Your task to perform on an android device: open device folders in google photos Image 0: 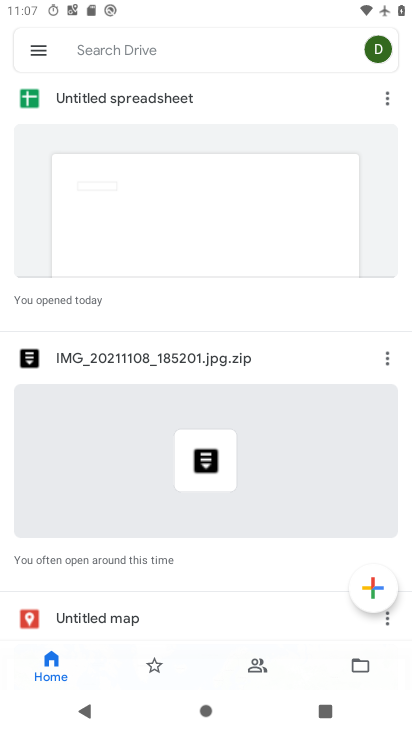
Step 0: press home button
Your task to perform on an android device: open device folders in google photos Image 1: 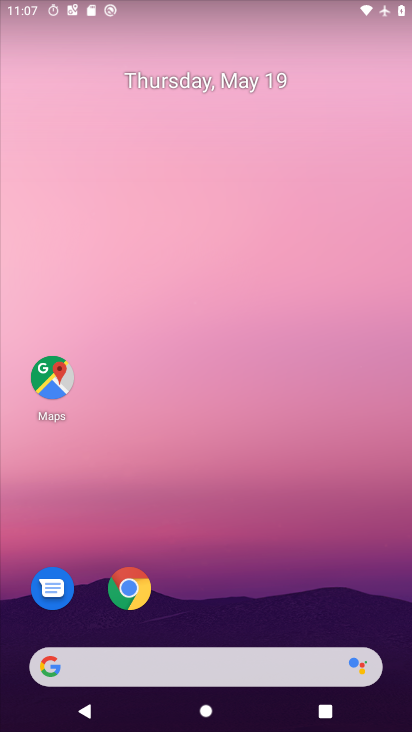
Step 1: drag from (144, 657) to (327, 67)
Your task to perform on an android device: open device folders in google photos Image 2: 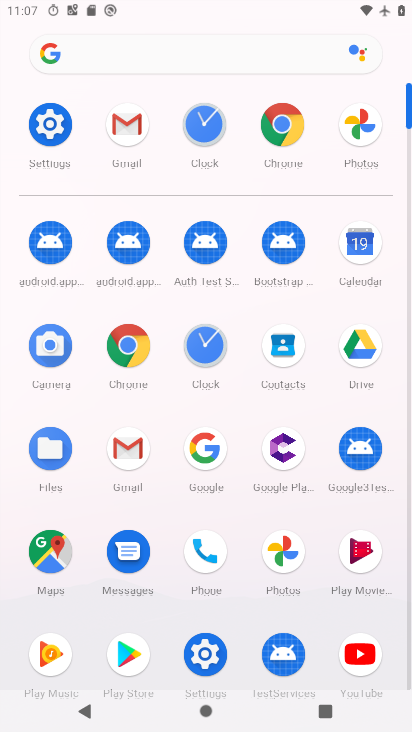
Step 2: click (289, 555)
Your task to perform on an android device: open device folders in google photos Image 3: 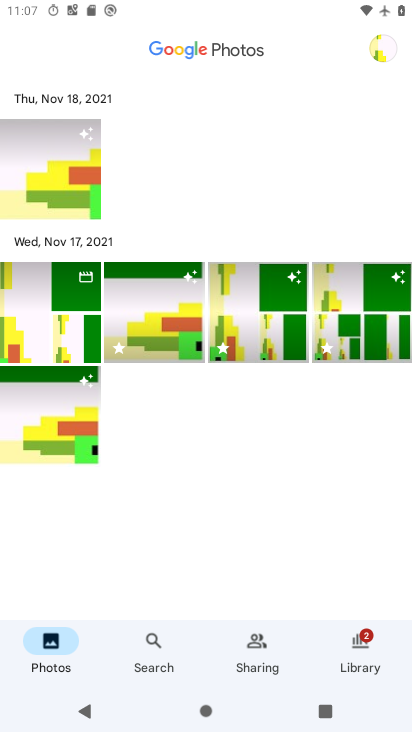
Step 3: click (384, 40)
Your task to perform on an android device: open device folders in google photos Image 4: 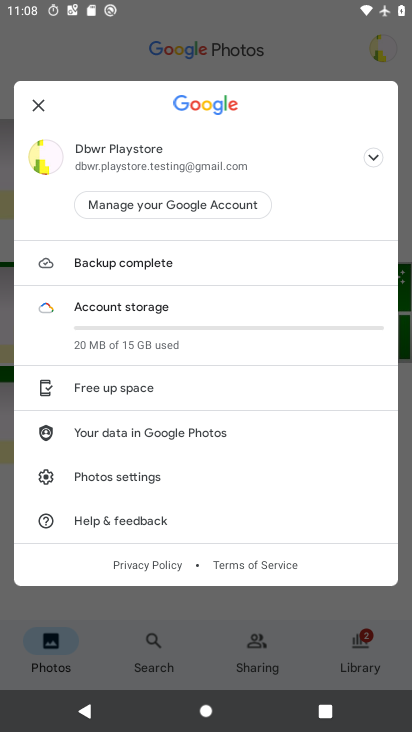
Step 4: click (171, 473)
Your task to perform on an android device: open device folders in google photos Image 5: 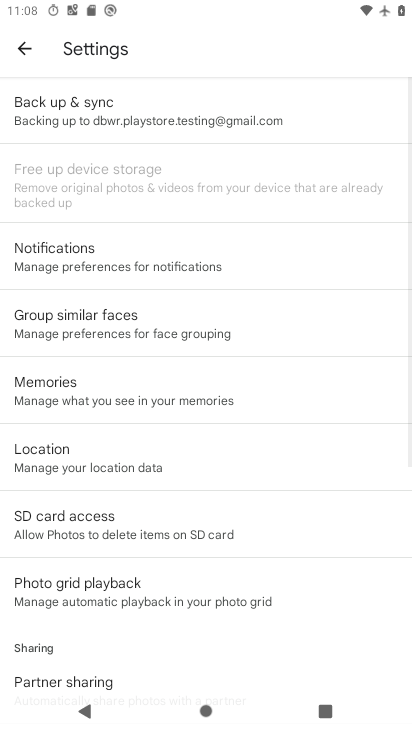
Step 5: task complete